Your task to perform on an android device: Do I have any events today? Image 0: 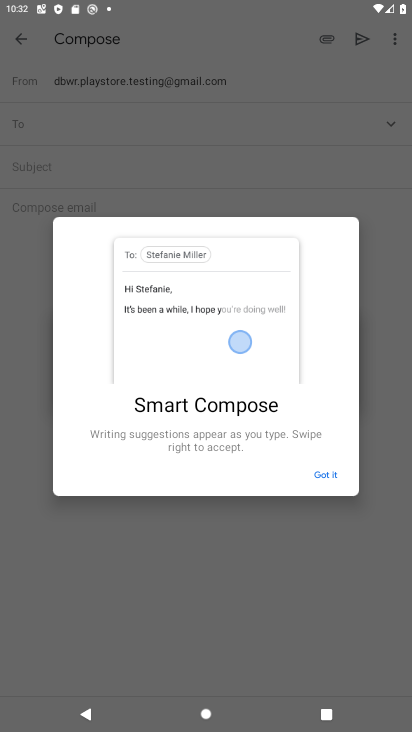
Step 0: press home button
Your task to perform on an android device: Do I have any events today? Image 1: 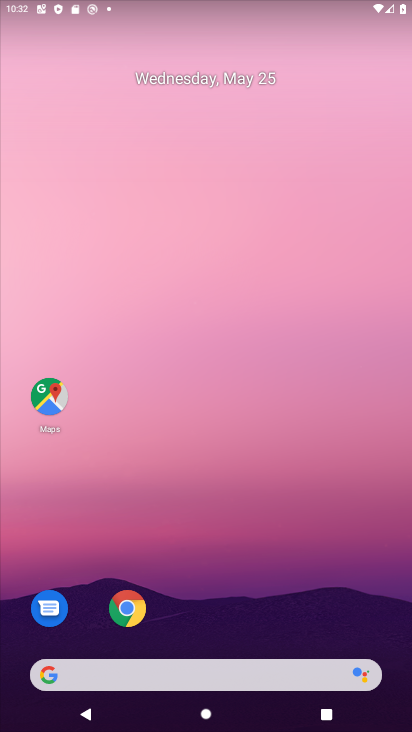
Step 1: drag from (261, 578) to (199, 119)
Your task to perform on an android device: Do I have any events today? Image 2: 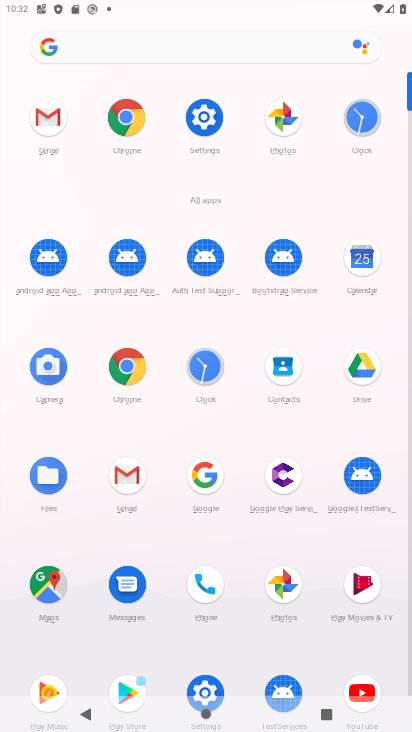
Step 2: click (364, 258)
Your task to perform on an android device: Do I have any events today? Image 3: 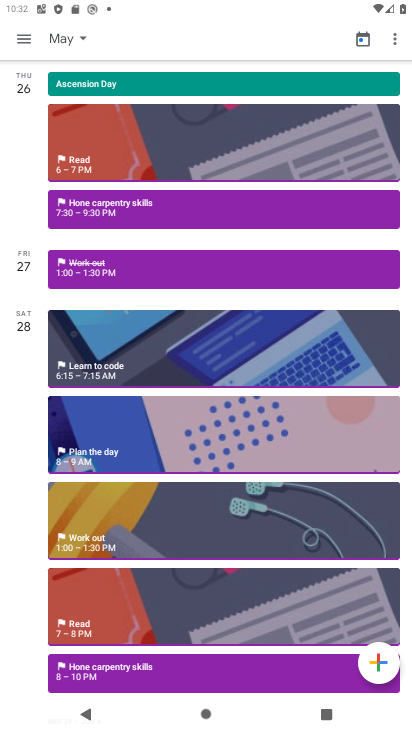
Step 3: click (82, 38)
Your task to perform on an android device: Do I have any events today? Image 4: 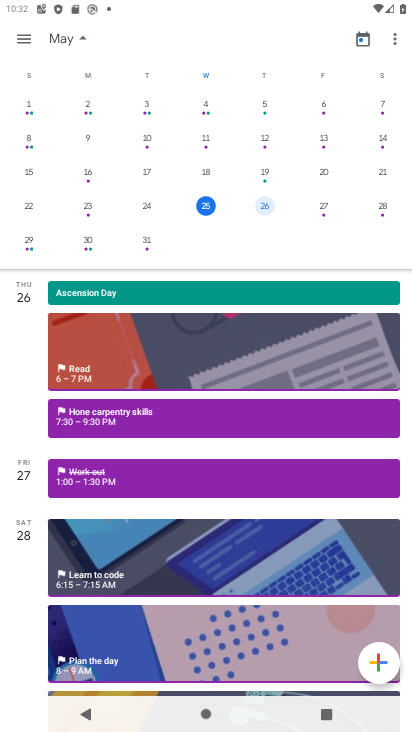
Step 4: click (365, 41)
Your task to perform on an android device: Do I have any events today? Image 5: 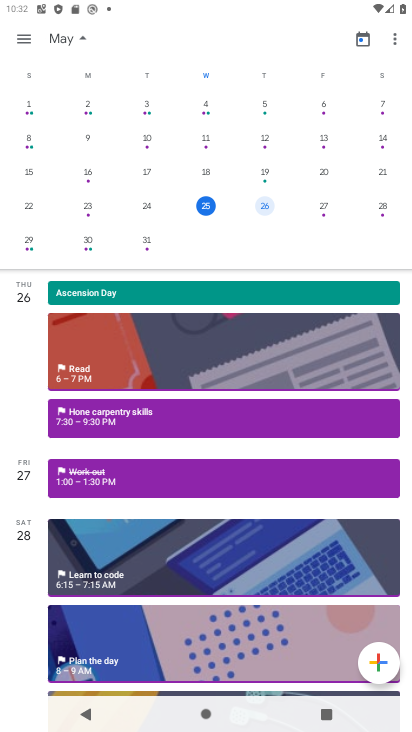
Step 5: click (365, 41)
Your task to perform on an android device: Do I have any events today? Image 6: 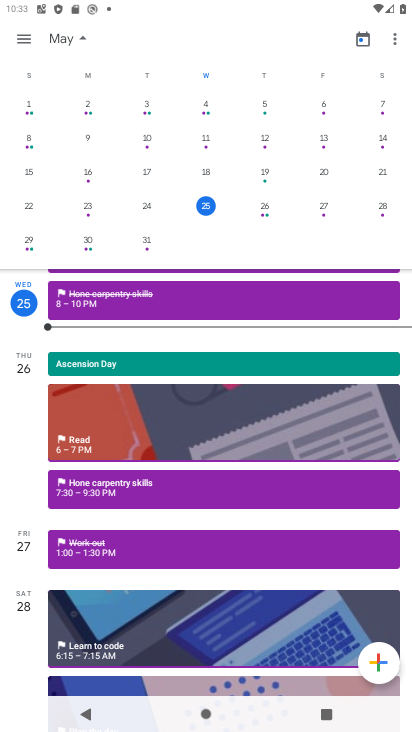
Step 6: click (168, 296)
Your task to perform on an android device: Do I have any events today? Image 7: 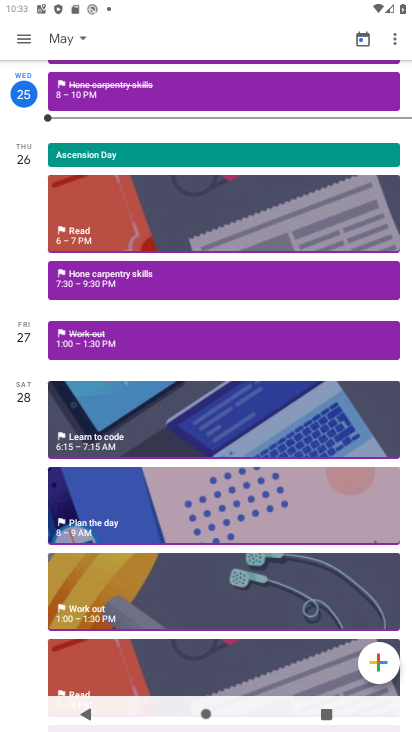
Step 7: click (27, 41)
Your task to perform on an android device: Do I have any events today? Image 8: 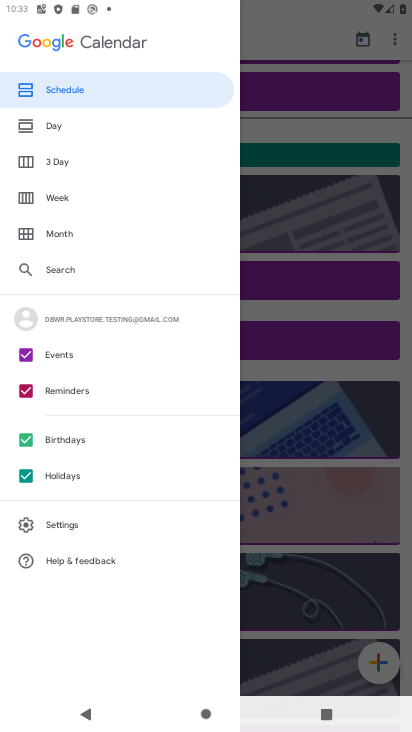
Step 8: click (61, 83)
Your task to perform on an android device: Do I have any events today? Image 9: 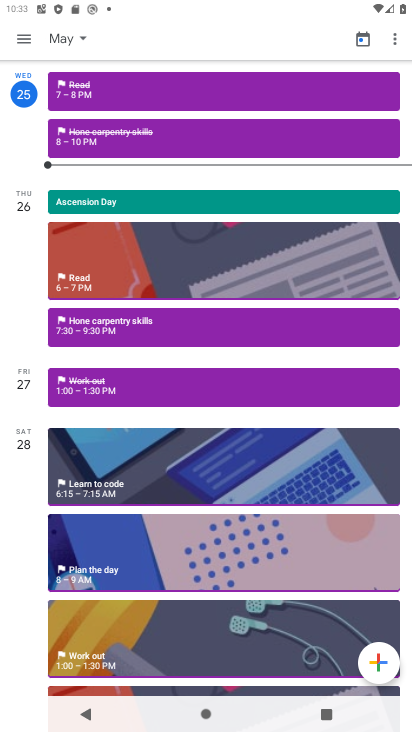
Step 9: task complete